Your task to perform on an android device: Search for hotels in San Francisco Image 0: 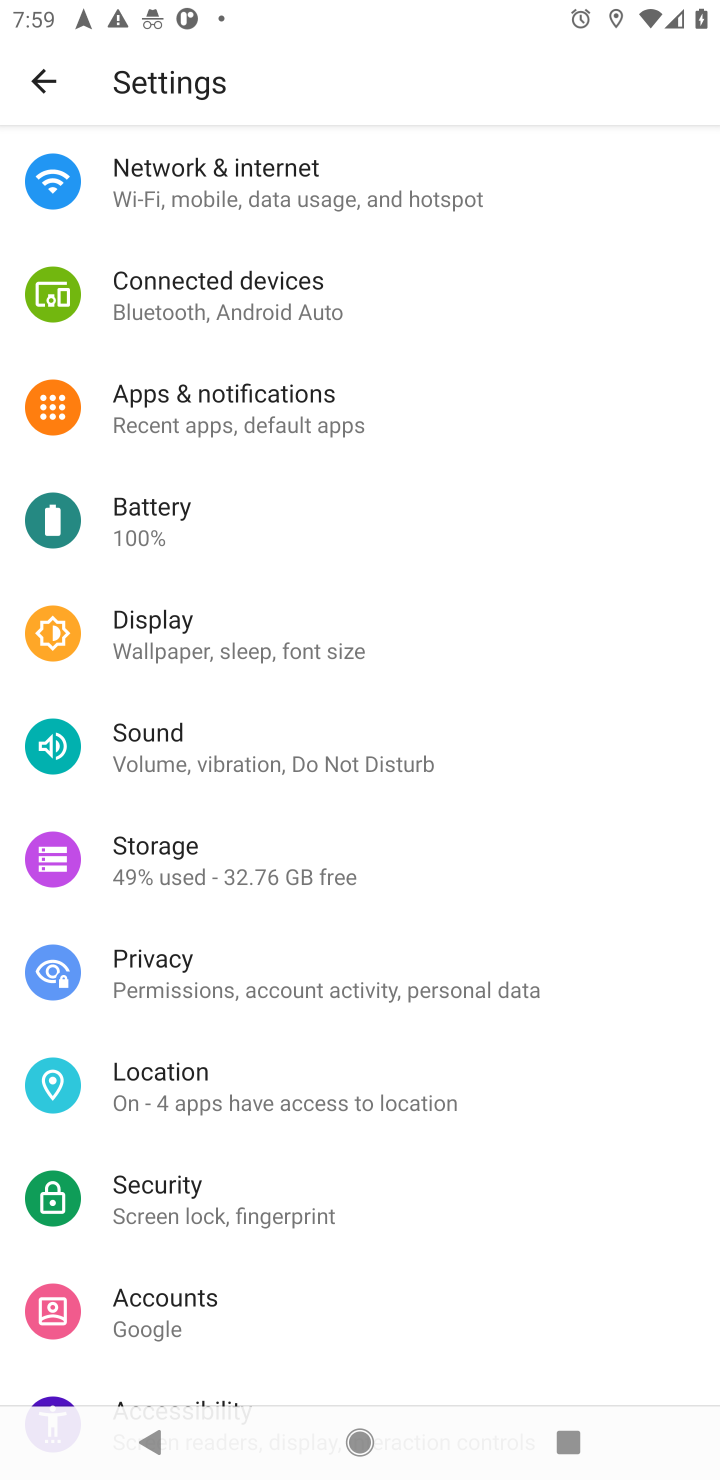
Step 0: press home button
Your task to perform on an android device: Search for hotels in San Francisco Image 1: 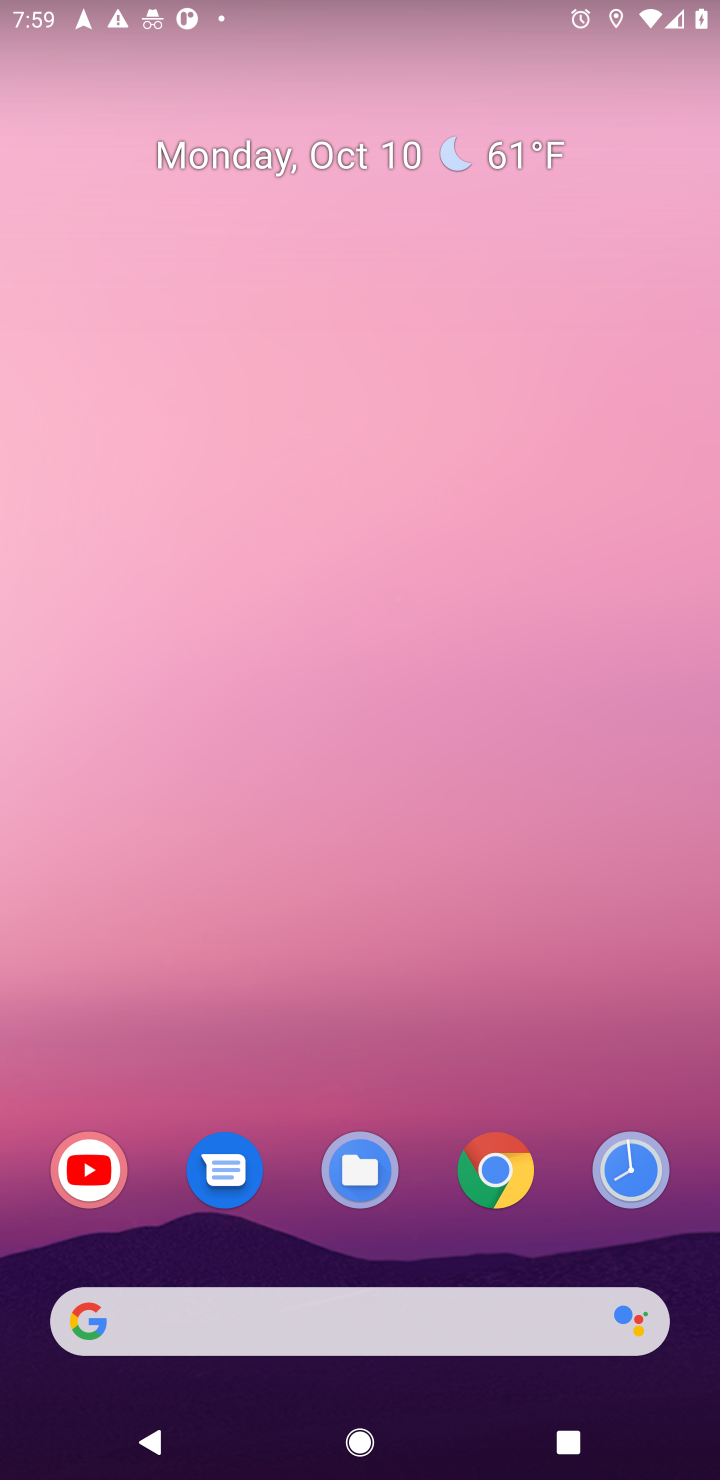
Step 1: click (481, 1174)
Your task to perform on an android device: Search for hotels in San Francisco Image 2: 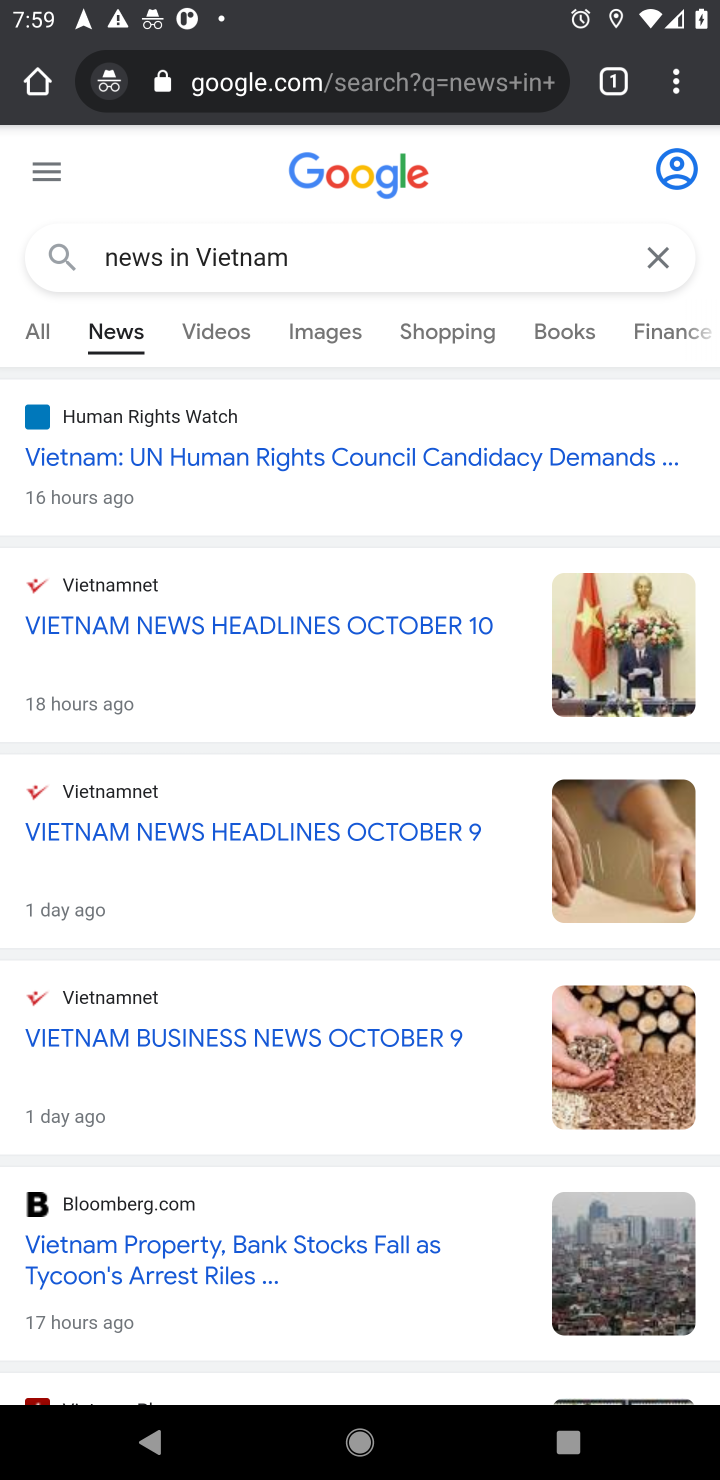
Step 2: click (419, 66)
Your task to perform on an android device: Search for hotels in San Francisco Image 3: 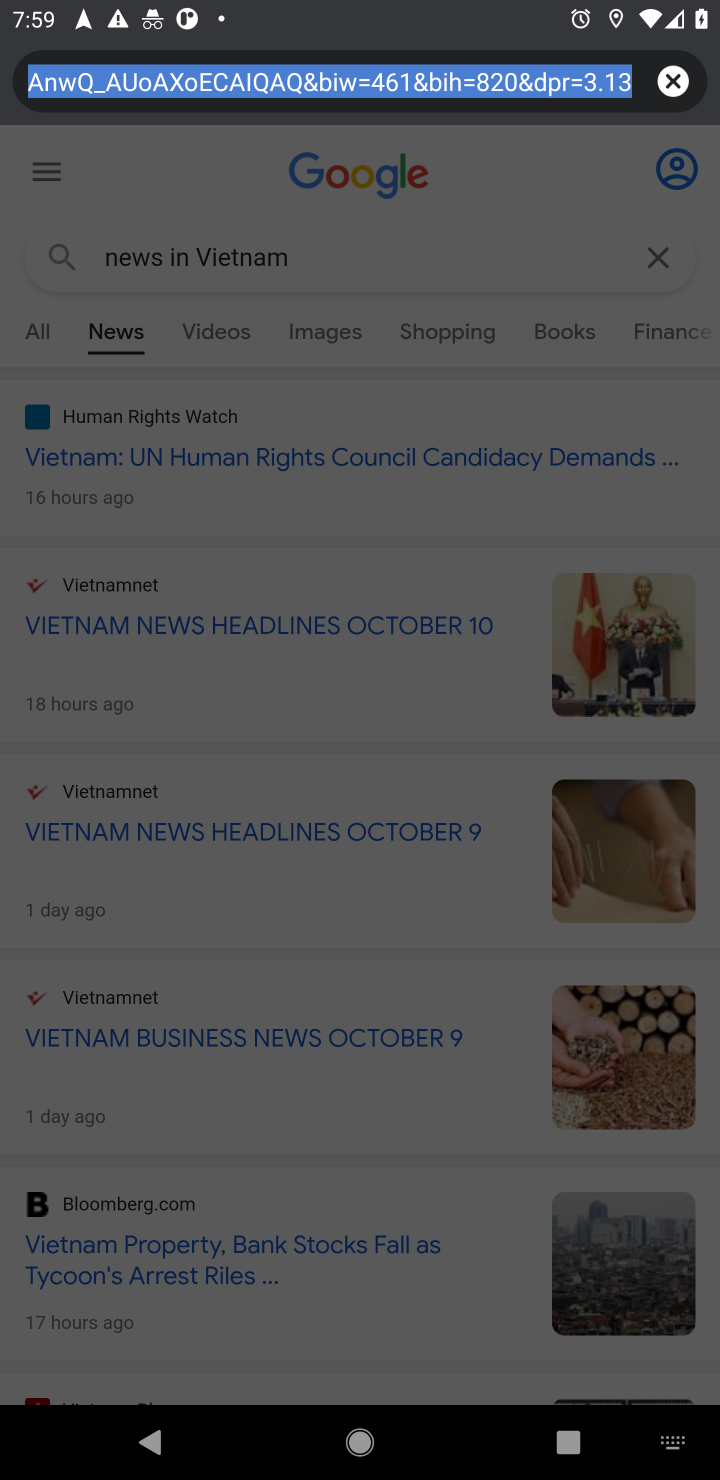
Step 3: type "hotels in San Francisco"
Your task to perform on an android device: Search for hotels in San Francisco Image 4: 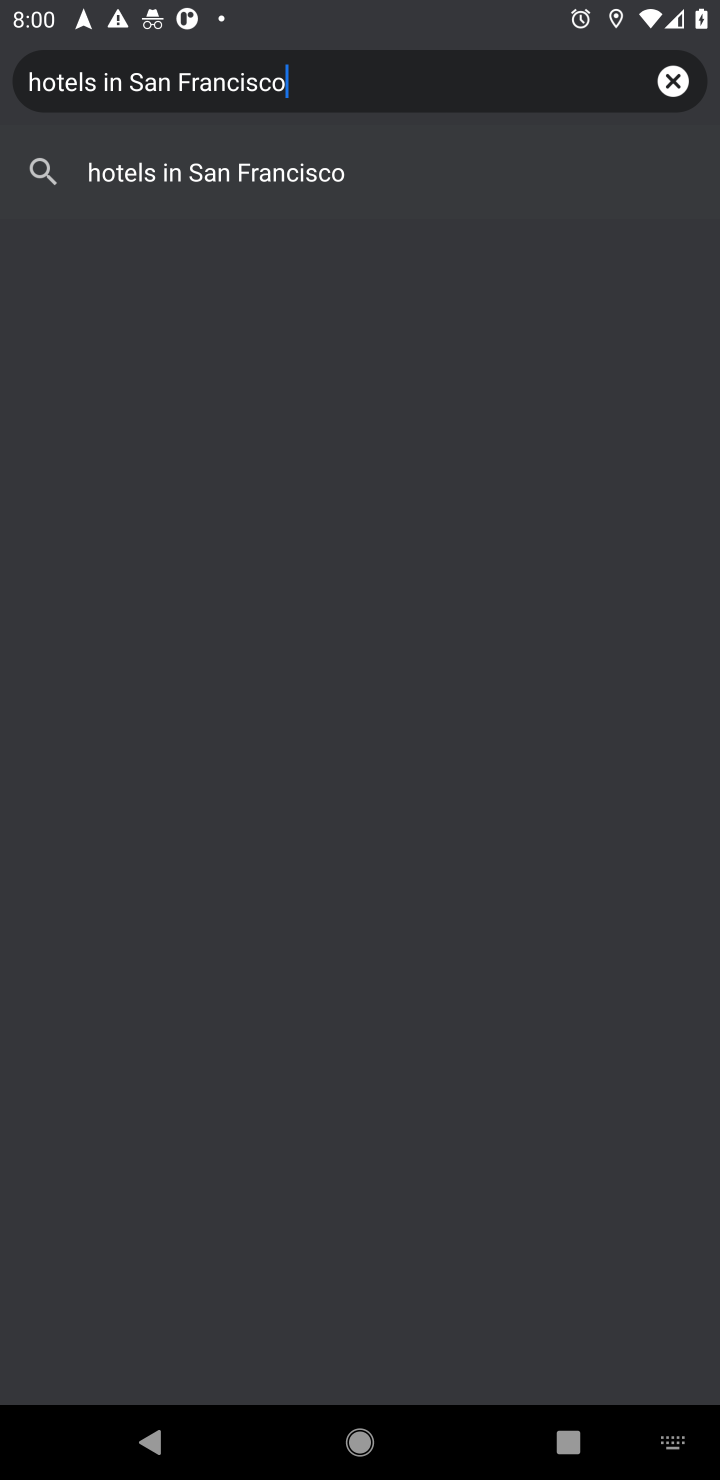
Step 4: click (221, 191)
Your task to perform on an android device: Search for hotels in San Francisco Image 5: 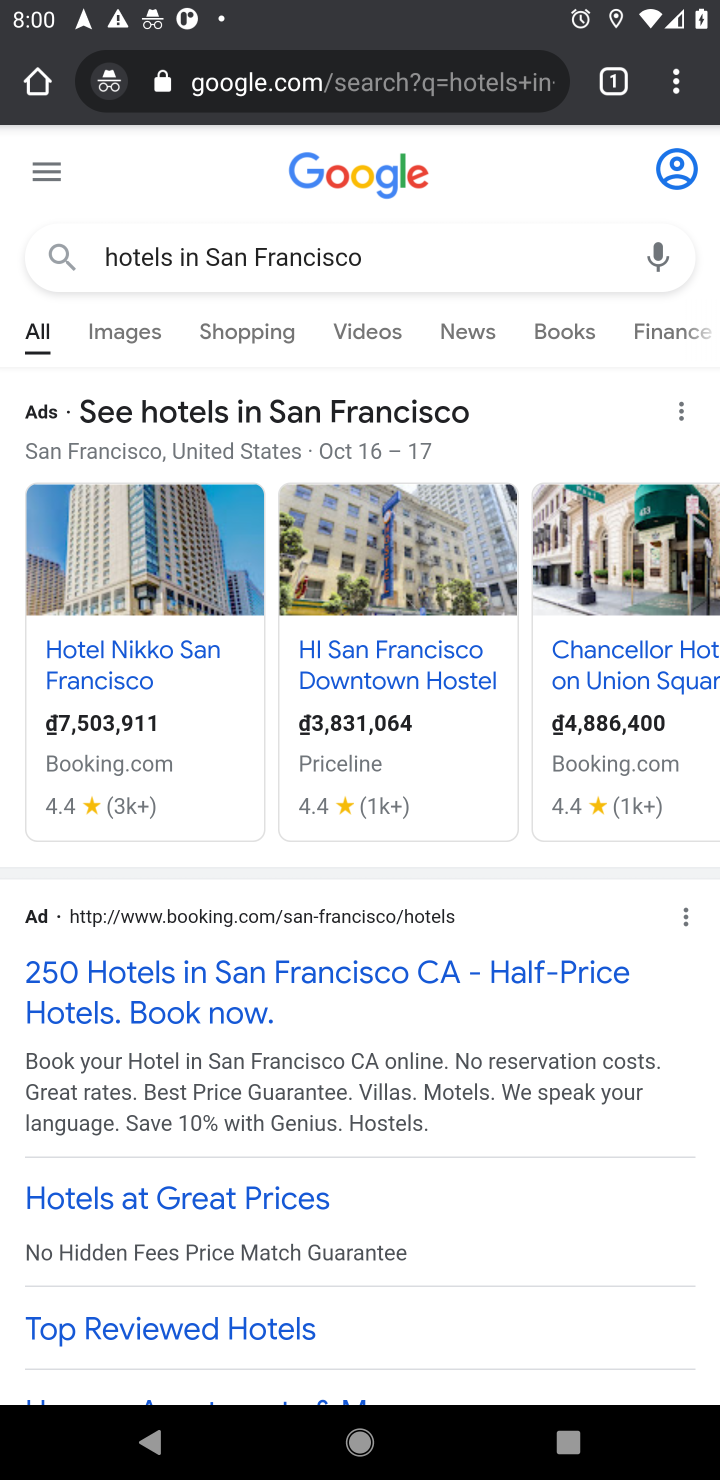
Step 5: task complete